Your task to perform on an android device: Open maps Image 0: 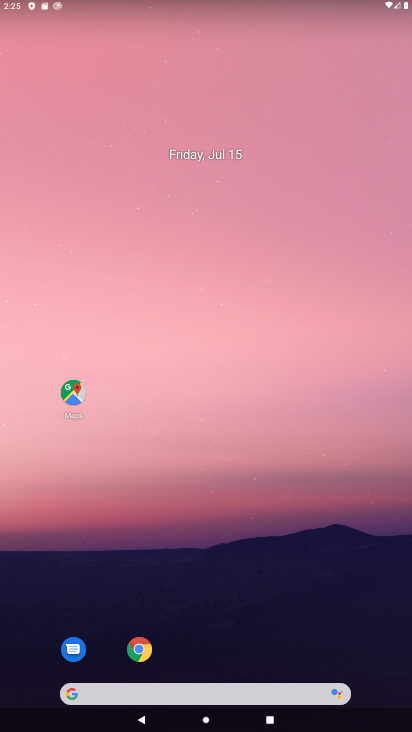
Step 0: drag from (290, 606) to (218, 18)
Your task to perform on an android device: Open maps Image 1: 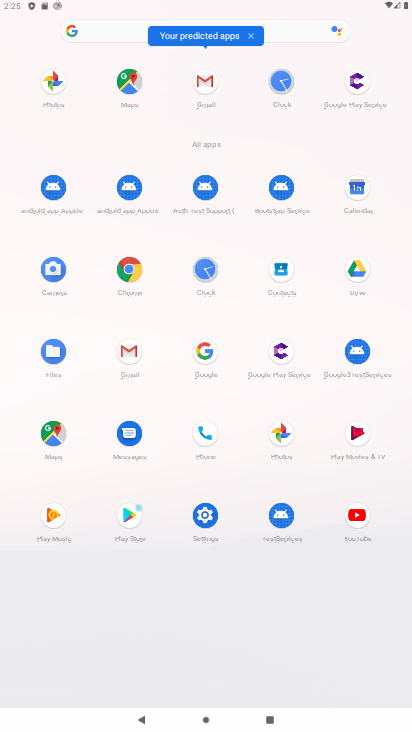
Step 1: click (54, 428)
Your task to perform on an android device: Open maps Image 2: 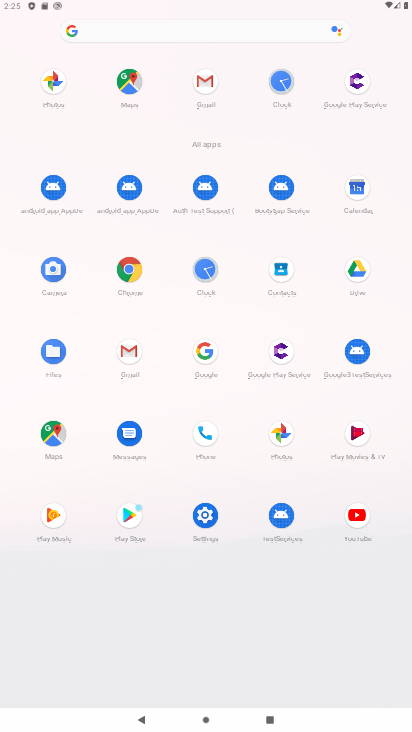
Step 2: click (55, 425)
Your task to perform on an android device: Open maps Image 3: 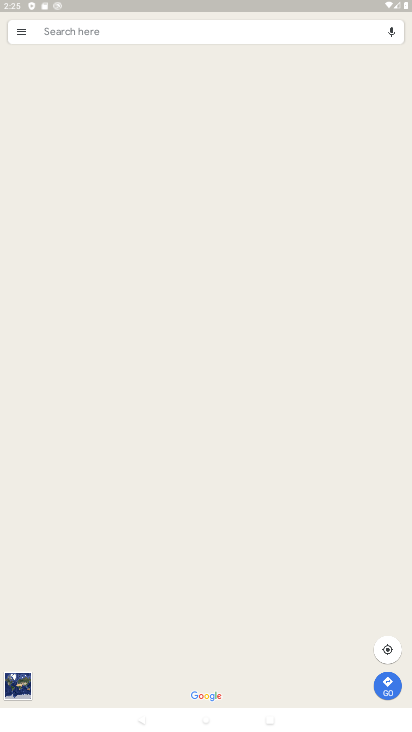
Step 3: click (242, 359)
Your task to perform on an android device: Open maps Image 4: 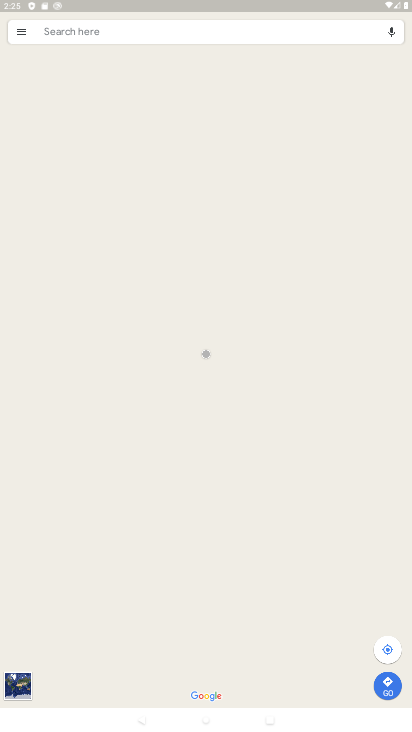
Step 4: task complete